Your task to perform on an android device: Clear the shopping cart on ebay. Image 0: 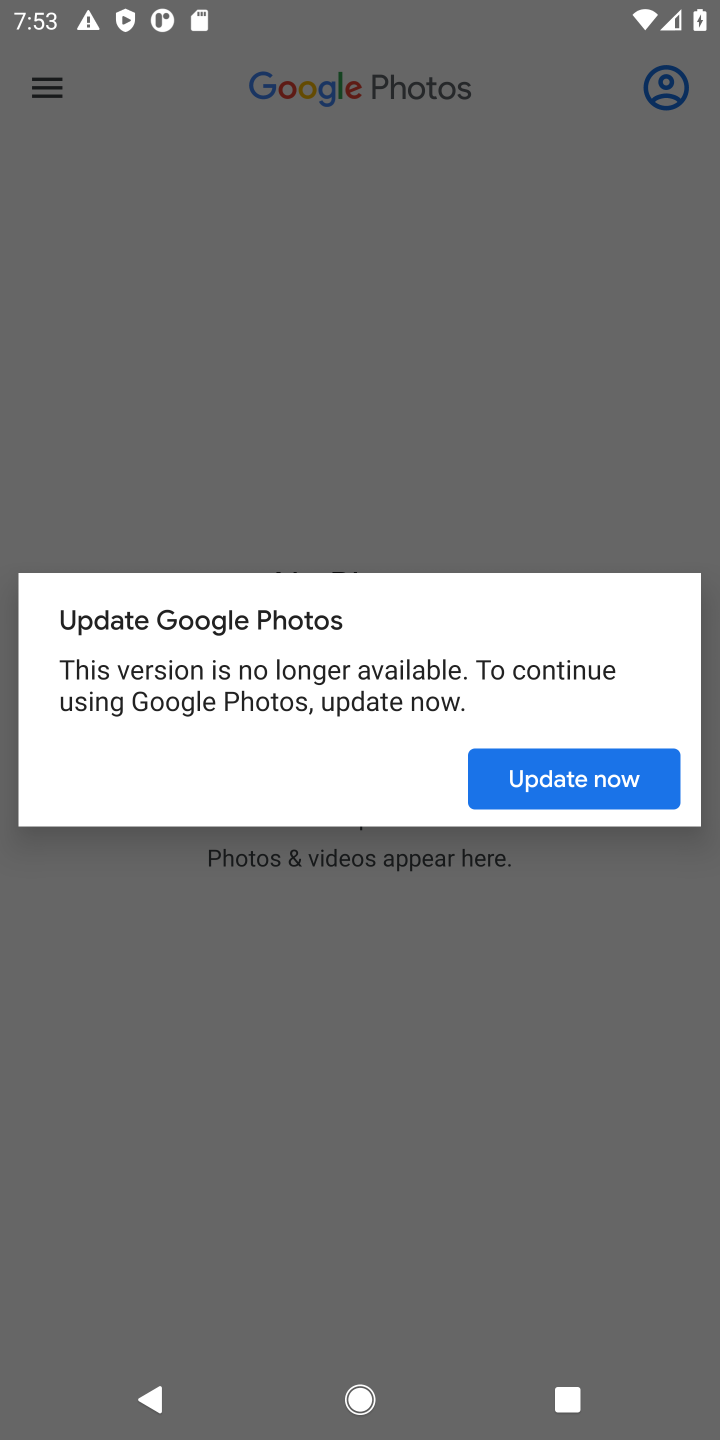
Step 0: press home button
Your task to perform on an android device: Clear the shopping cart on ebay. Image 1: 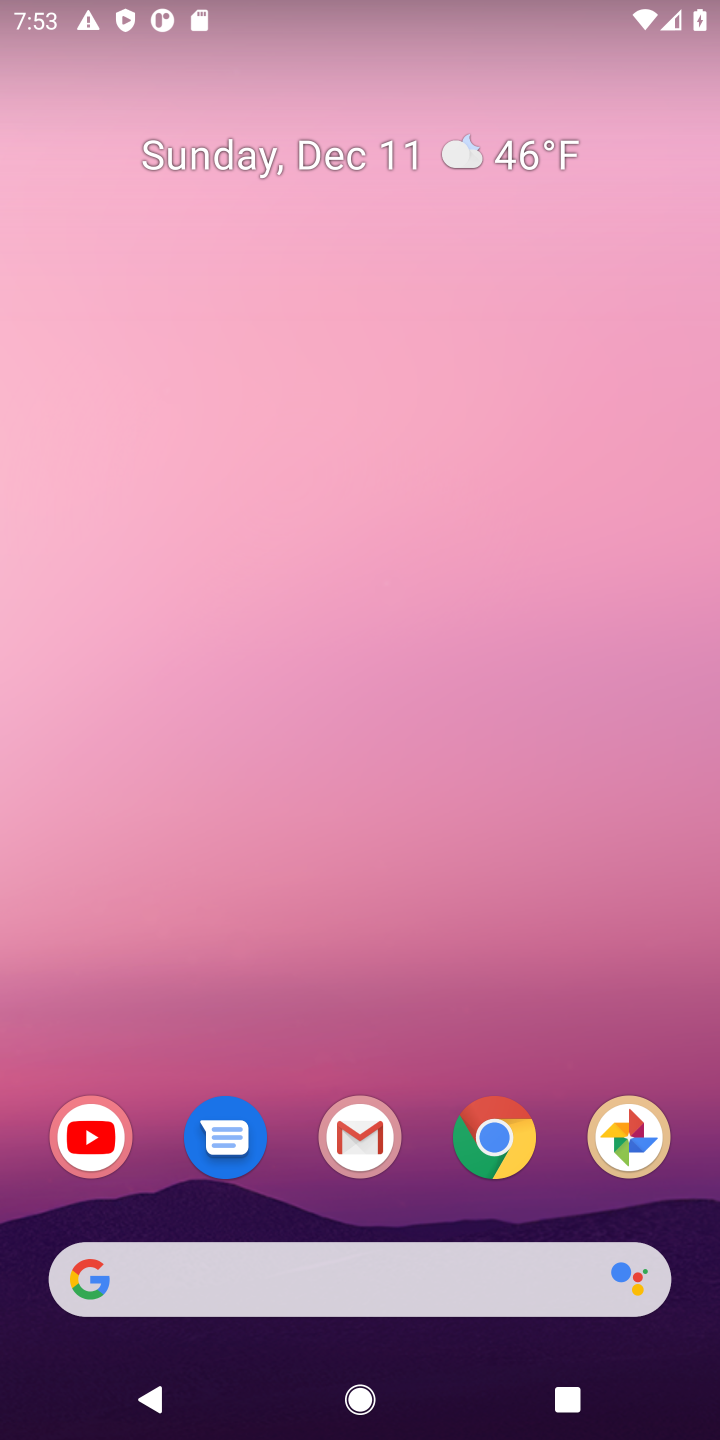
Step 1: click (500, 1124)
Your task to perform on an android device: Clear the shopping cart on ebay. Image 2: 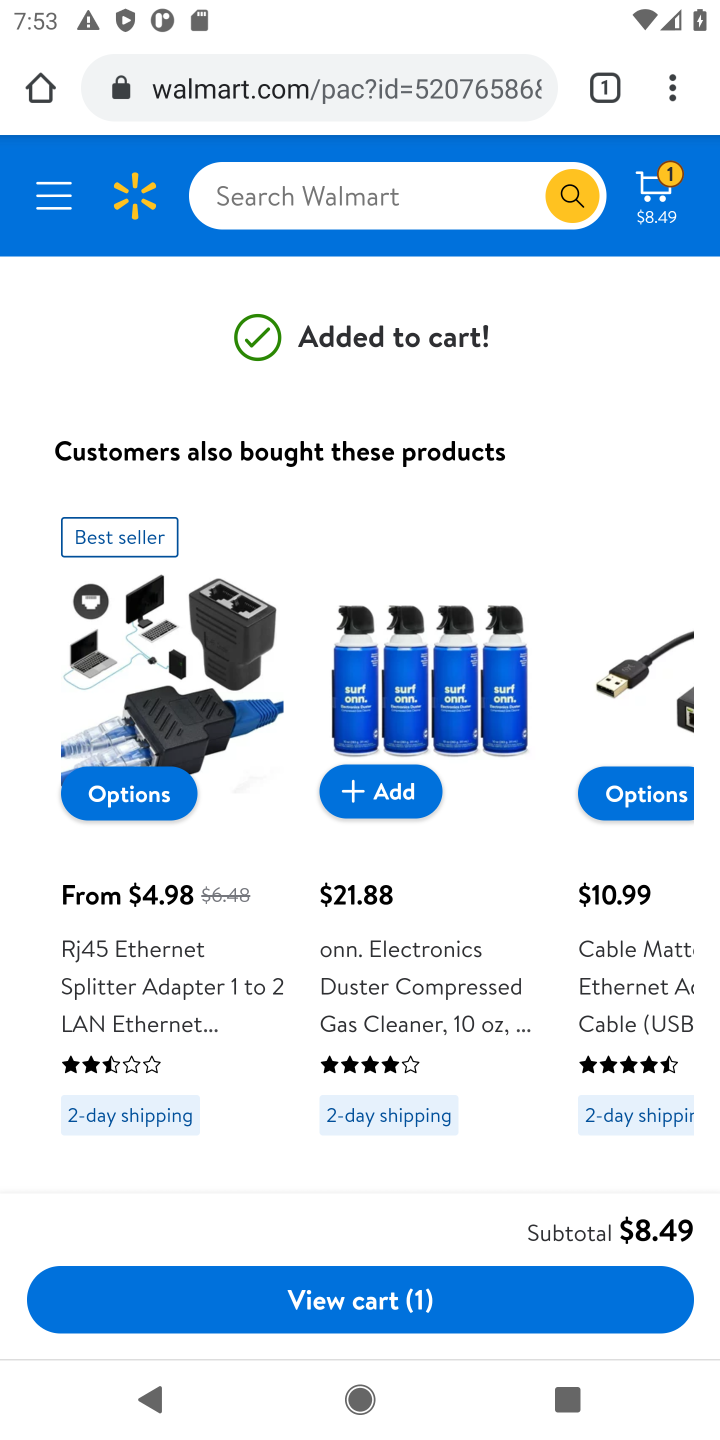
Step 2: click (283, 86)
Your task to perform on an android device: Clear the shopping cart on ebay. Image 3: 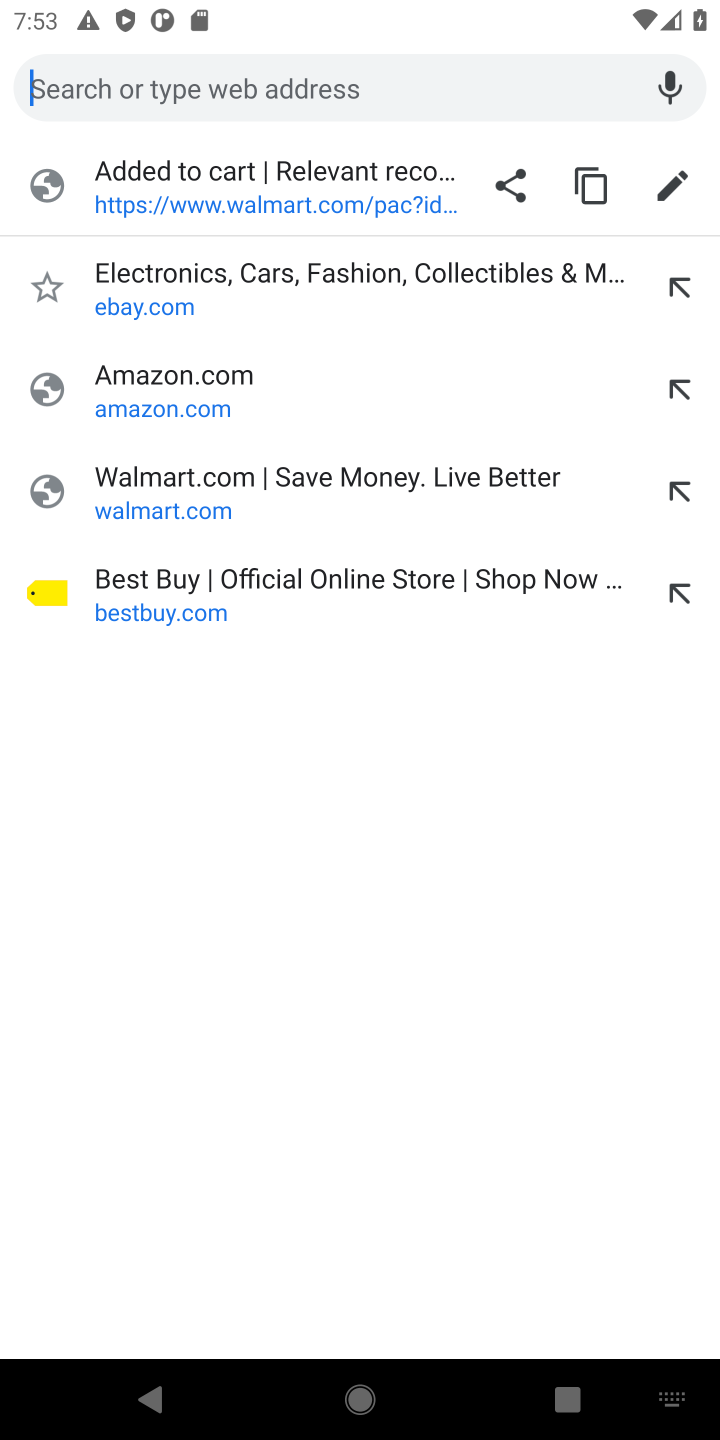
Step 3: click (237, 287)
Your task to perform on an android device: Clear the shopping cart on ebay. Image 4: 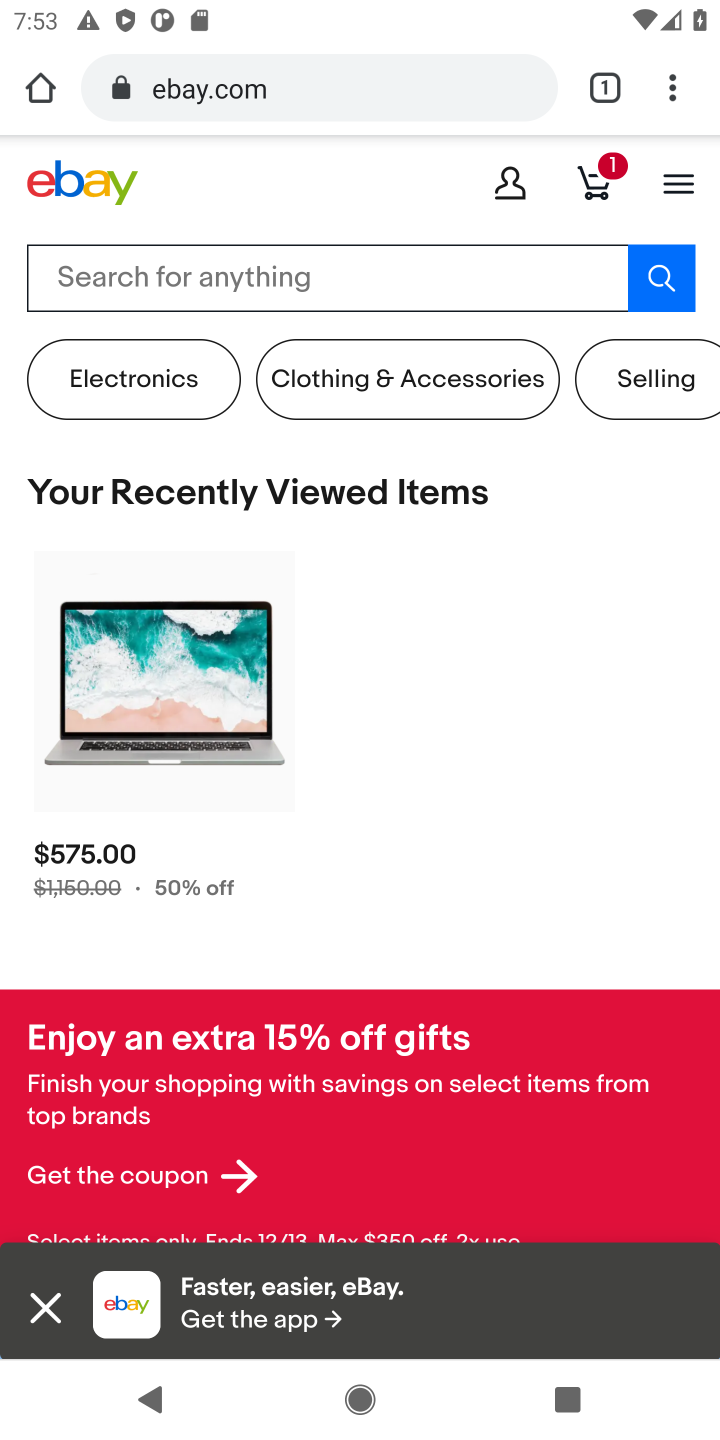
Step 4: click (605, 187)
Your task to perform on an android device: Clear the shopping cart on ebay. Image 5: 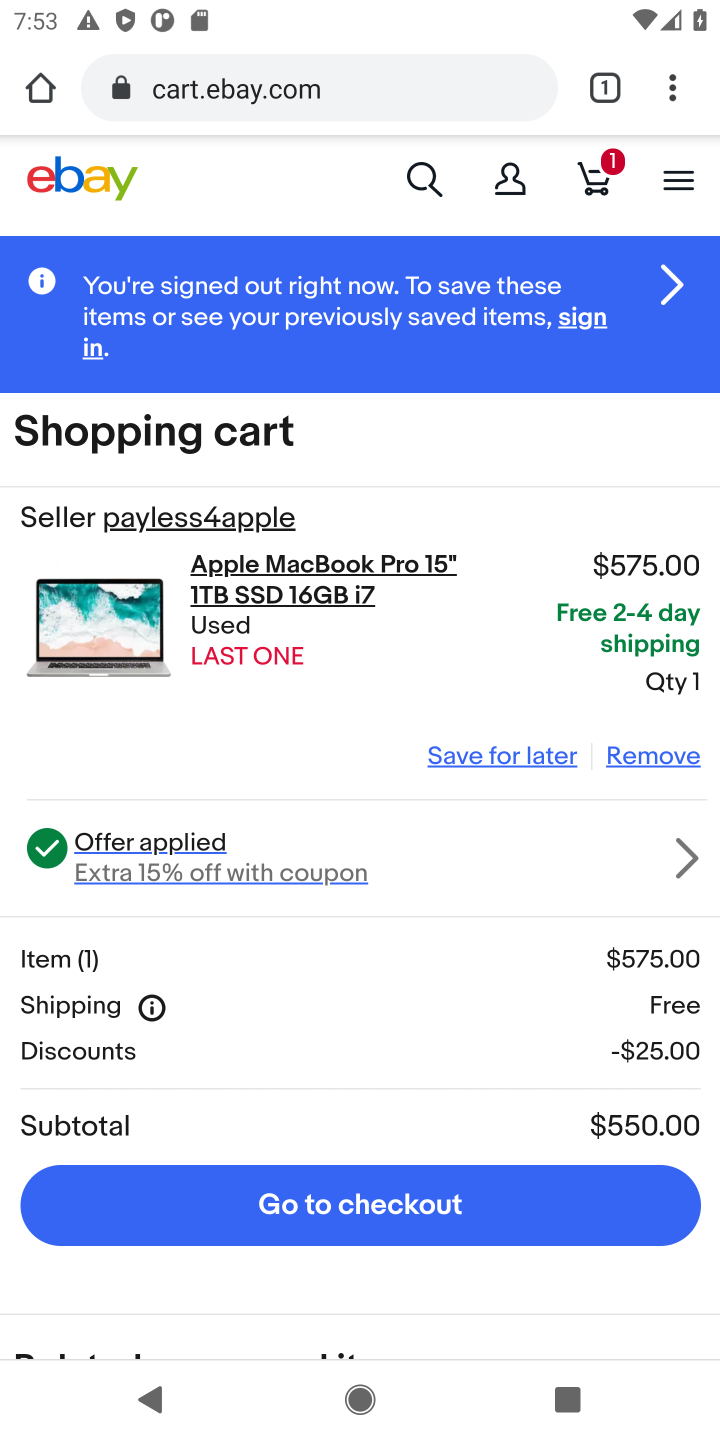
Step 5: click (633, 761)
Your task to perform on an android device: Clear the shopping cart on ebay. Image 6: 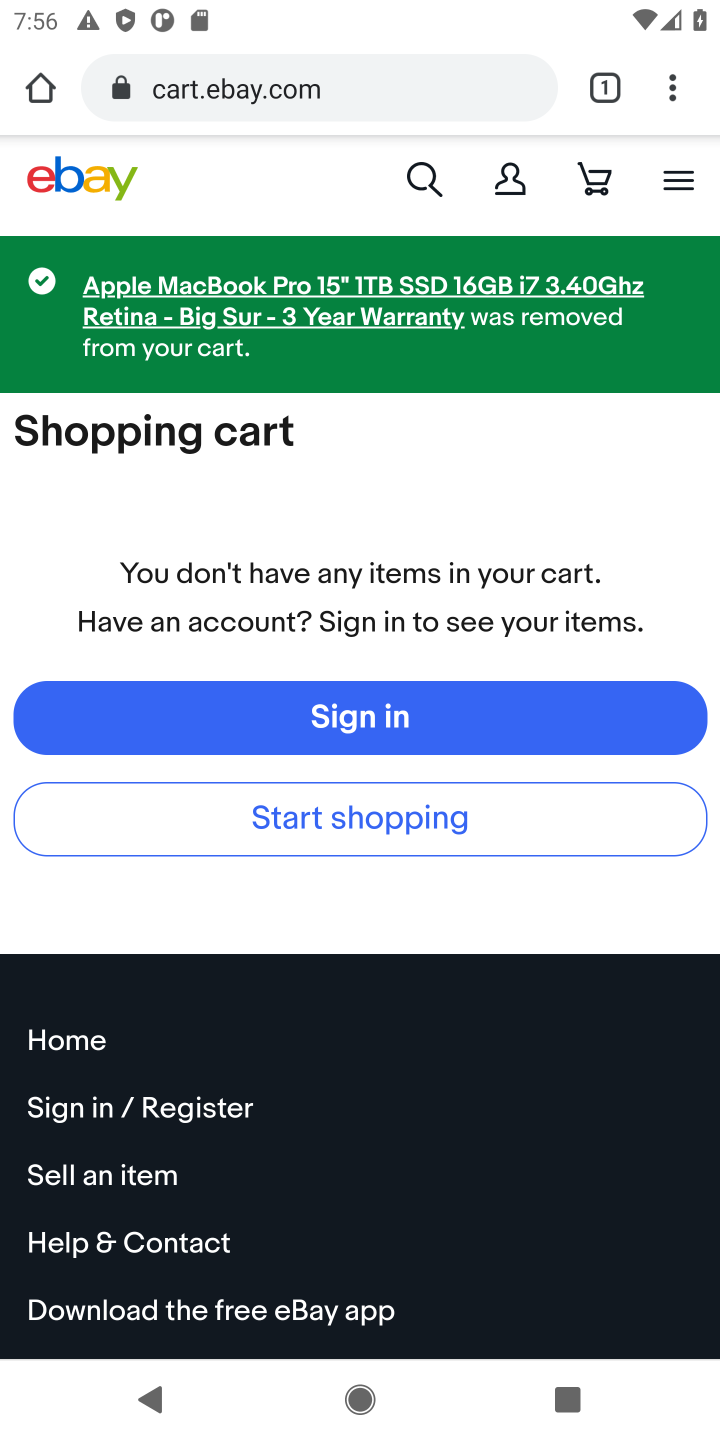
Step 6: task complete